Your task to perform on an android device: read, delete, or share a saved page in the chrome app Image 0: 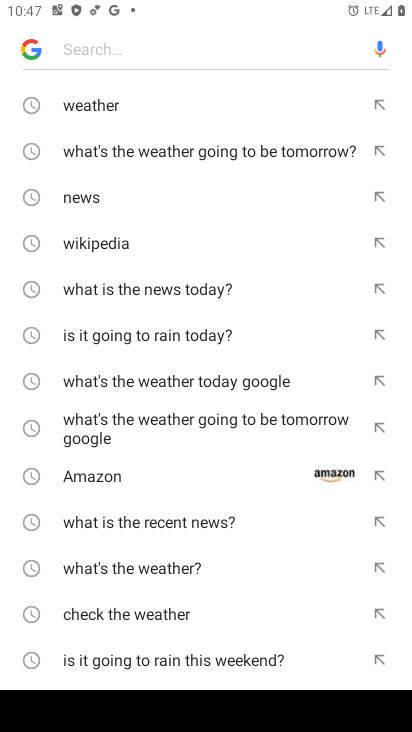
Step 0: press home button
Your task to perform on an android device: read, delete, or share a saved page in the chrome app Image 1: 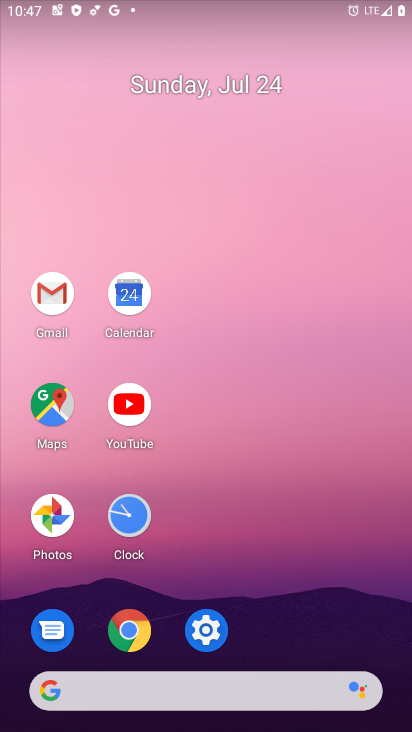
Step 1: click (124, 632)
Your task to perform on an android device: read, delete, or share a saved page in the chrome app Image 2: 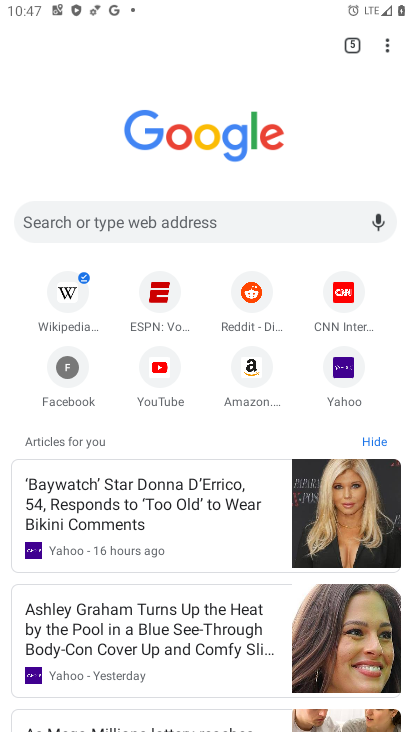
Step 2: click (385, 45)
Your task to perform on an android device: read, delete, or share a saved page in the chrome app Image 3: 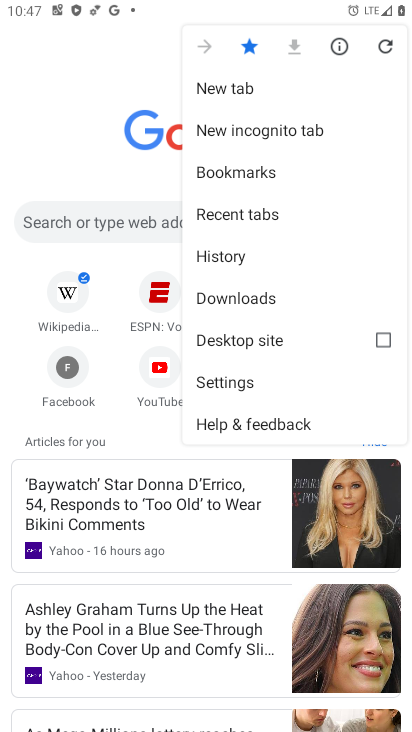
Step 3: click (235, 294)
Your task to perform on an android device: read, delete, or share a saved page in the chrome app Image 4: 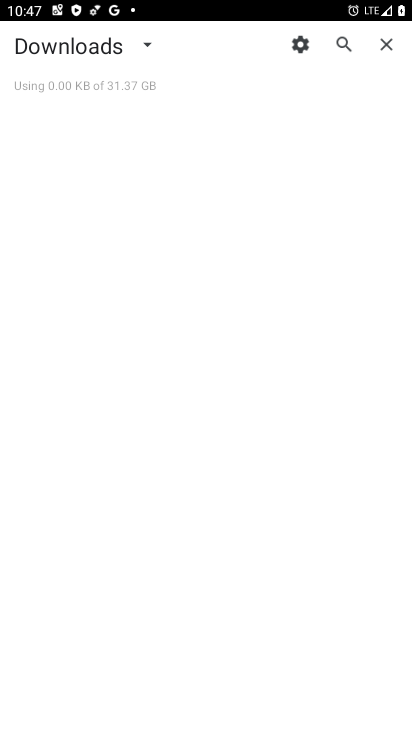
Step 4: task complete